Your task to perform on an android device: open app "Facebook Lite" Image 0: 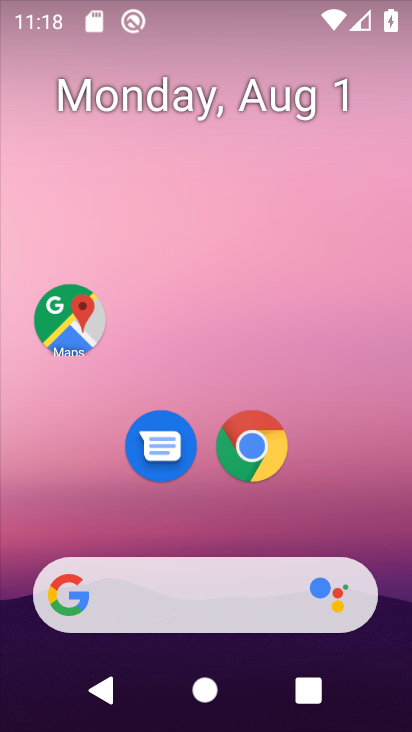
Step 0: drag from (195, 527) to (199, 116)
Your task to perform on an android device: open app "Facebook Lite" Image 1: 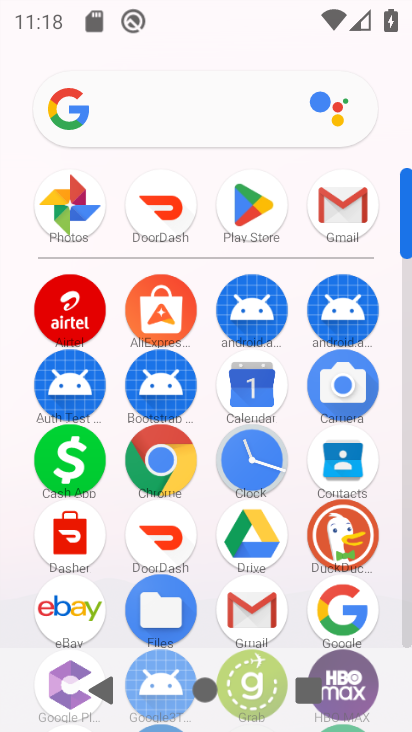
Step 1: click (234, 209)
Your task to perform on an android device: open app "Facebook Lite" Image 2: 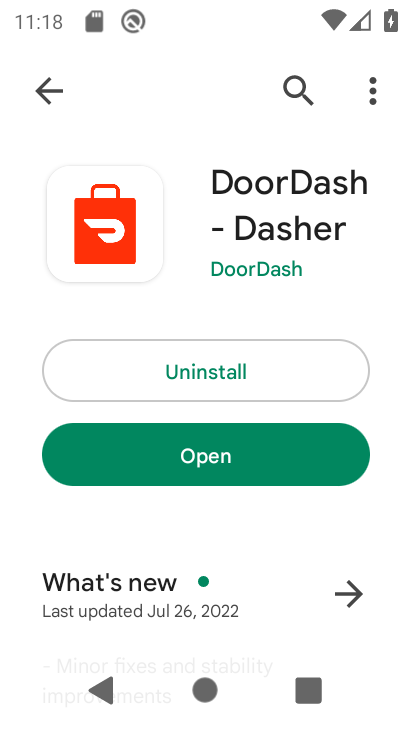
Step 2: click (306, 83)
Your task to perform on an android device: open app "Facebook Lite" Image 3: 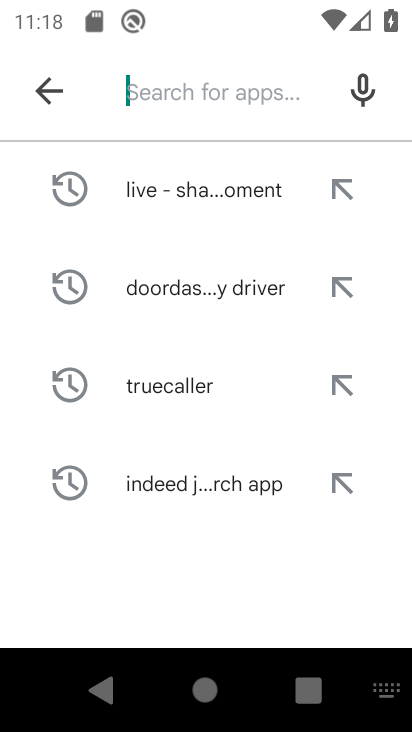
Step 3: type "Facebook Lite"
Your task to perform on an android device: open app "Facebook Lite" Image 4: 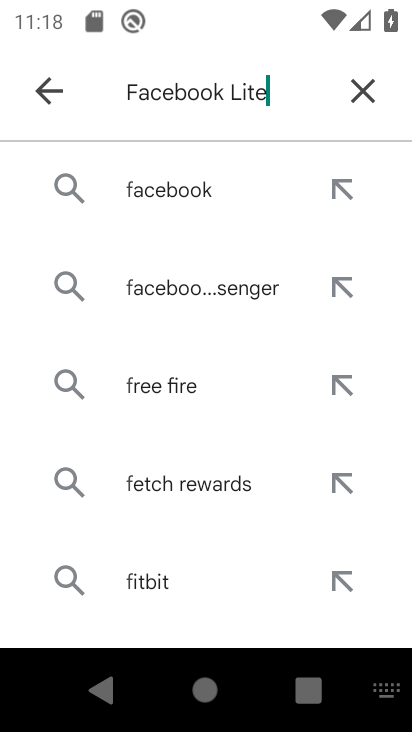
Step 4: type ""
Your task to perform on an android device: open app "Facebook Lite" Image 5: 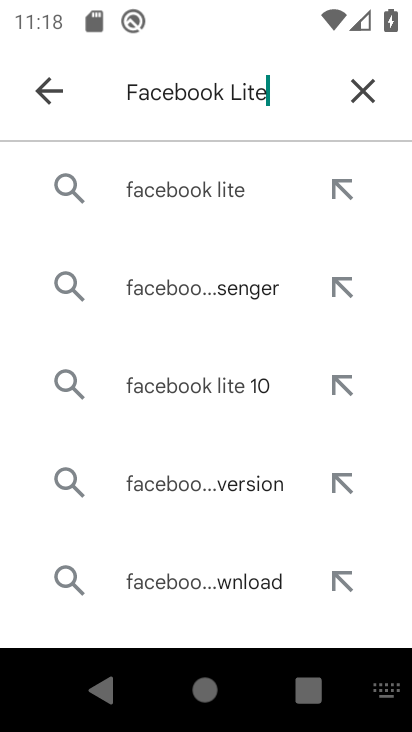
Step 5: click (156, 175)
Your task to perform on an android device: open app "Facebook Lite" Image 6: 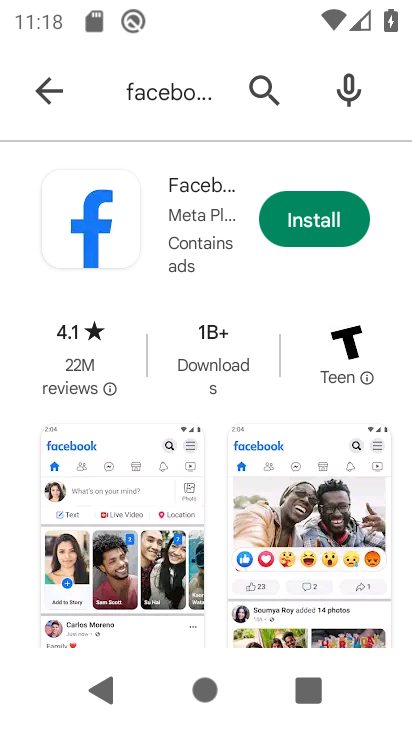
Step 6: task complete